Your task to perform on an android device: Open network settings Image 0: 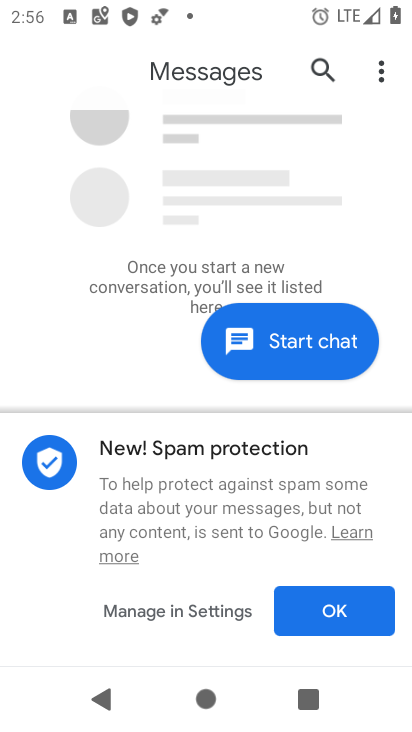
Step 0: press home button
Your task to perform on an android device: Open network settings Image 1: 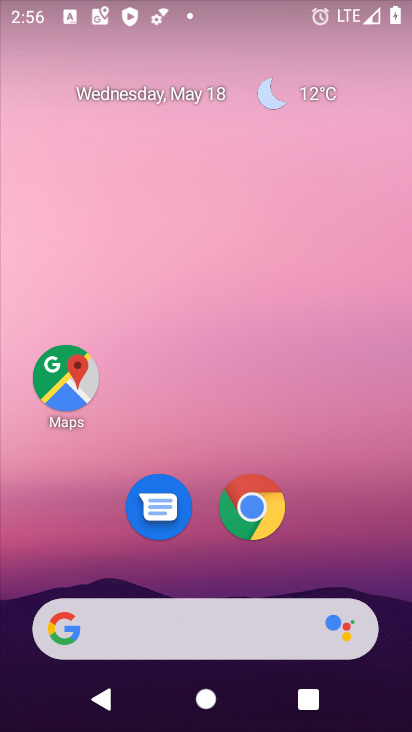
Step 1: drag from (406, 621) to (318, 34)
Your task to perform on an android device: Open network settings Image 2: 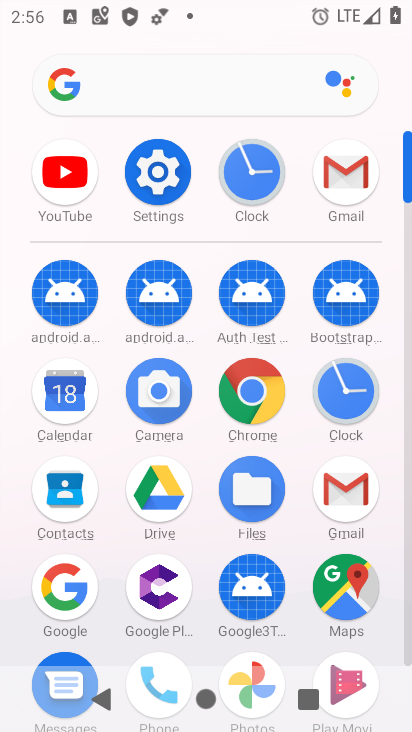
Step 2: click (408, 655)
Your task to perform on an android device: Open network settings Image 3: 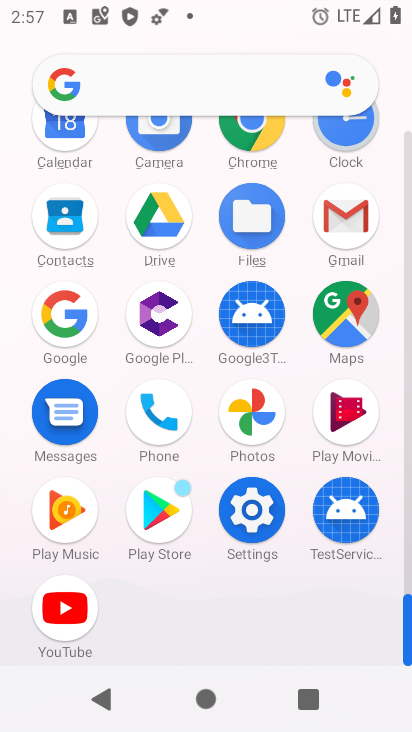
Step 3: click (247, 508)
Your task to perform on an android device: Open network settings Image 4: 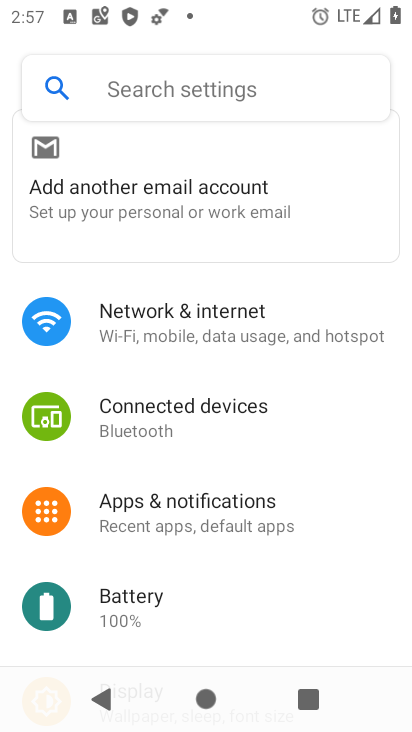
Step 4: click (156, 319)
Your task to perform on an android device: Open network settings Image 5: 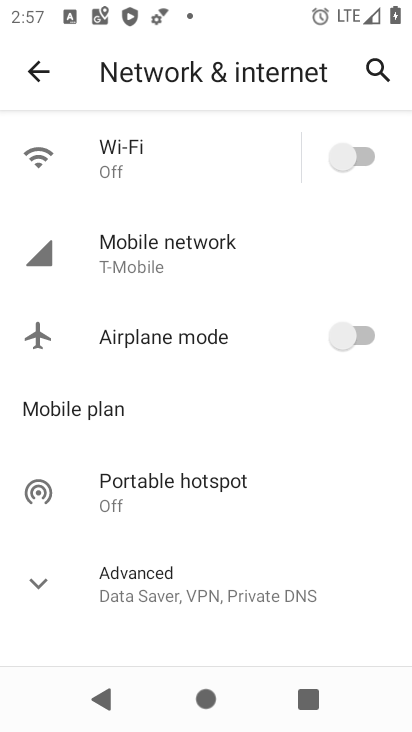
Step 5: click (143, 243)
Your task to perform on an android device: Open network settings Image 6: 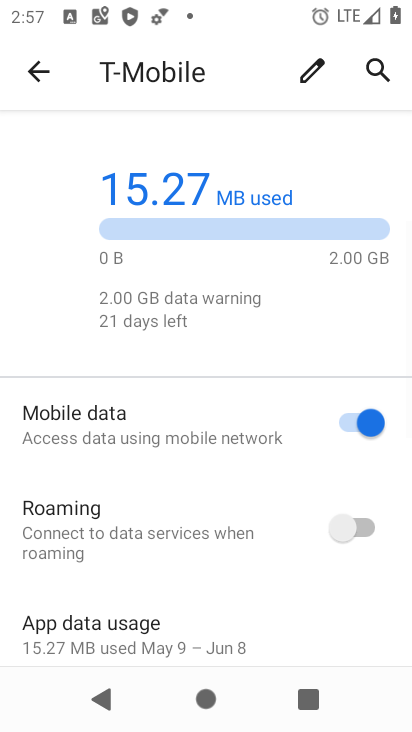
Step 6: task complete